Your task to perform on an android device: open app "Microsoft Excel" (install if not already installed) and enter user name: "kidnappers@icloud.com" and password: "Bessemerizes" Image 0: 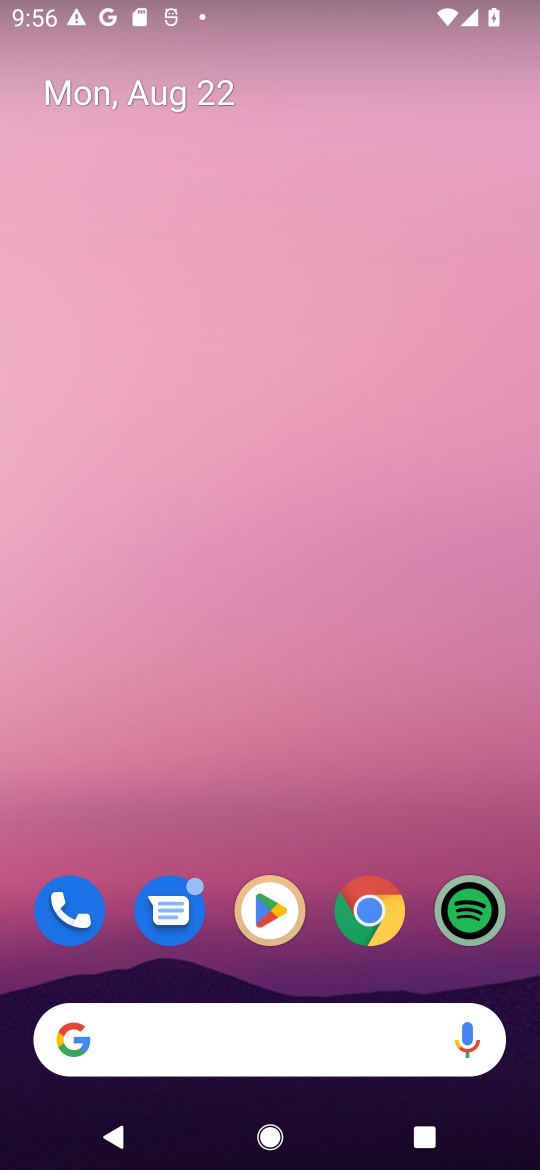
Step 0: click (268, 921)
Your task to perform on an android device: open app "Microsoft Excel" (install if not already installed) and enter user name: "kidnappers@icloud.com" and password: "Bessemerizes" Image 1: 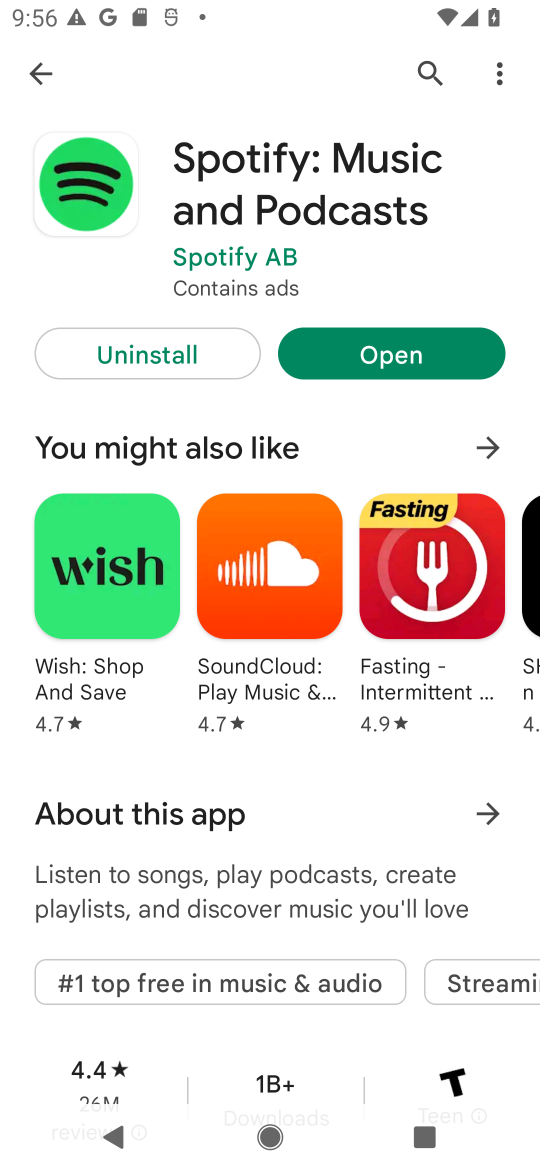
Step 1: click (424, 66)
Your task to perform on an android device: open app "Microsoft Excel" (install if not already installed) and enter user name: "kidnappers@icloud.com" and password: "Bessemerizes" Image 2: 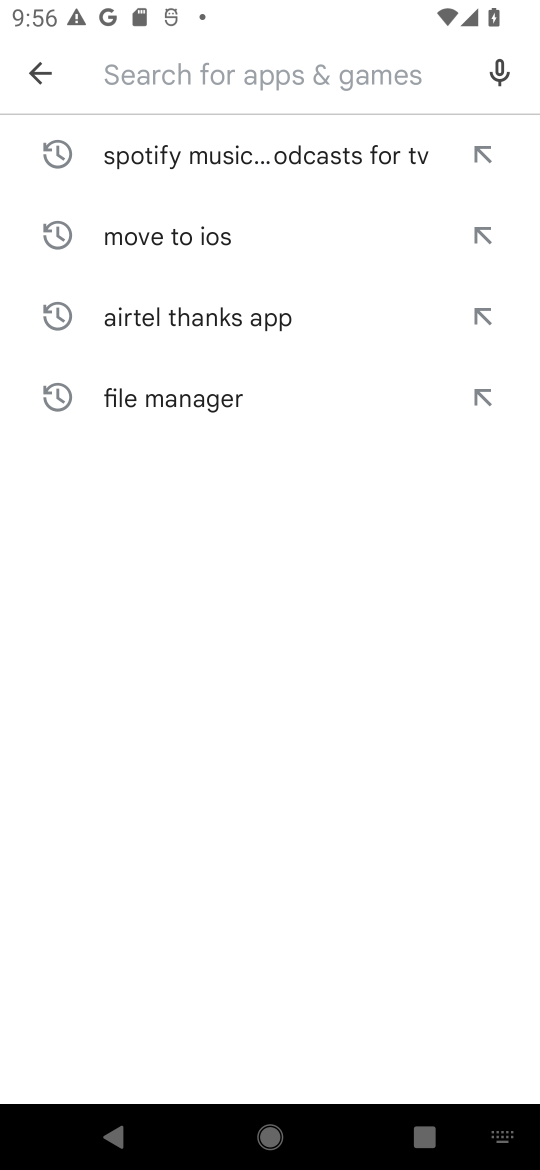
Step 2: type "Microsoft Excel"
Your task to perform on an android device: open app "Microsoft Excel" (install if not already installed) and enter user name: "kidnappers@icloud.com" and password: "Bessemerizes" Image 3: 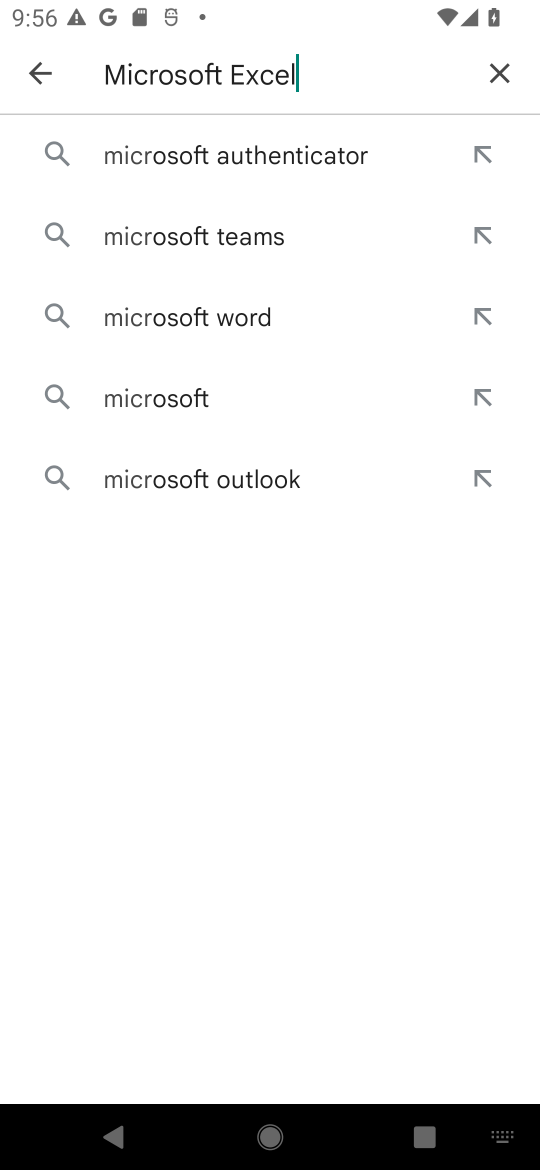
Step 3: type ""
Your task to perform on an android device: open app "Microsoft Excel" (install if not already installed) and enter user name: "kidnappers@icloud.com" and password: "Bessemerizes" Image 4: 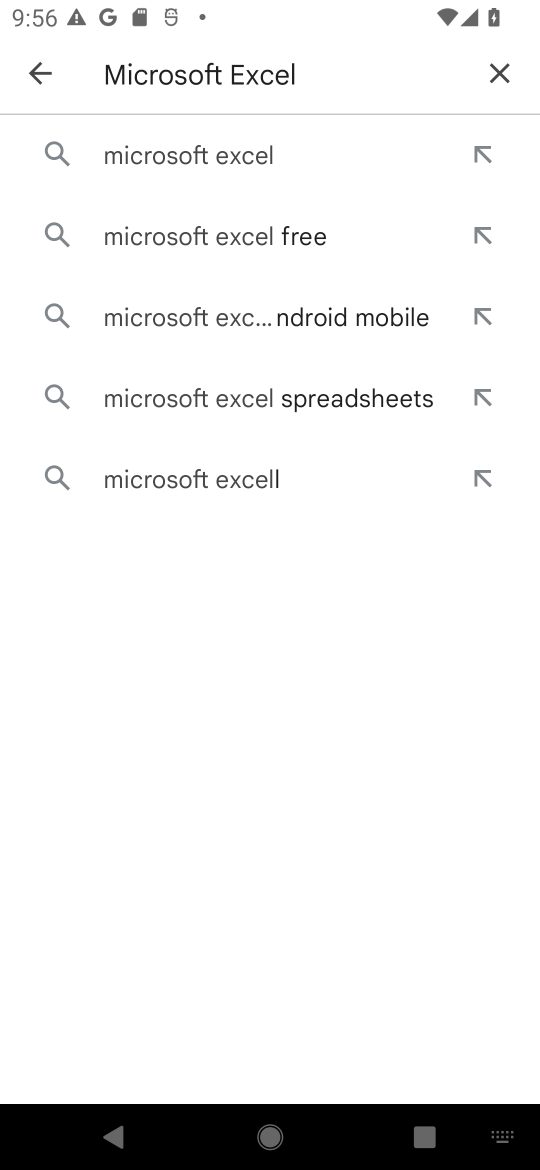
Step 4: click (219, 169)
Your task to perform on an android device: open app "Microsoft Excel" (install if not already installed) and enter user name: "kidnappers@icloud.com" and password: "Bessemerizes" Image 5: 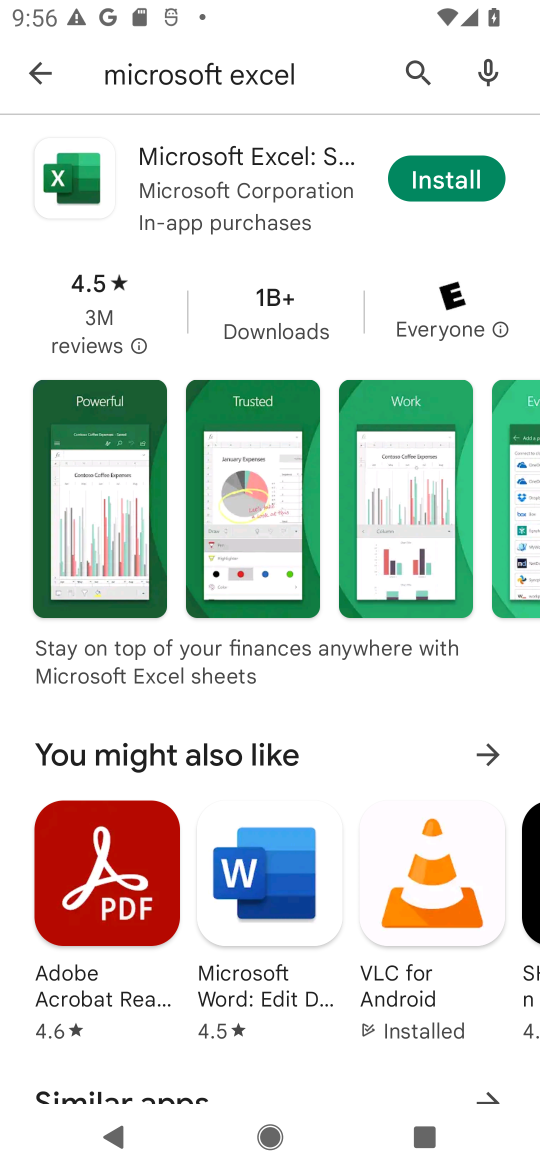
Step 5: click (426, 179)
Your task to perform on an android device: open app "Microsoft Excel" (install if not already installed) and enter user name: "kidnappers@icloud.com" and password: "Bessemerizes" Image 6: 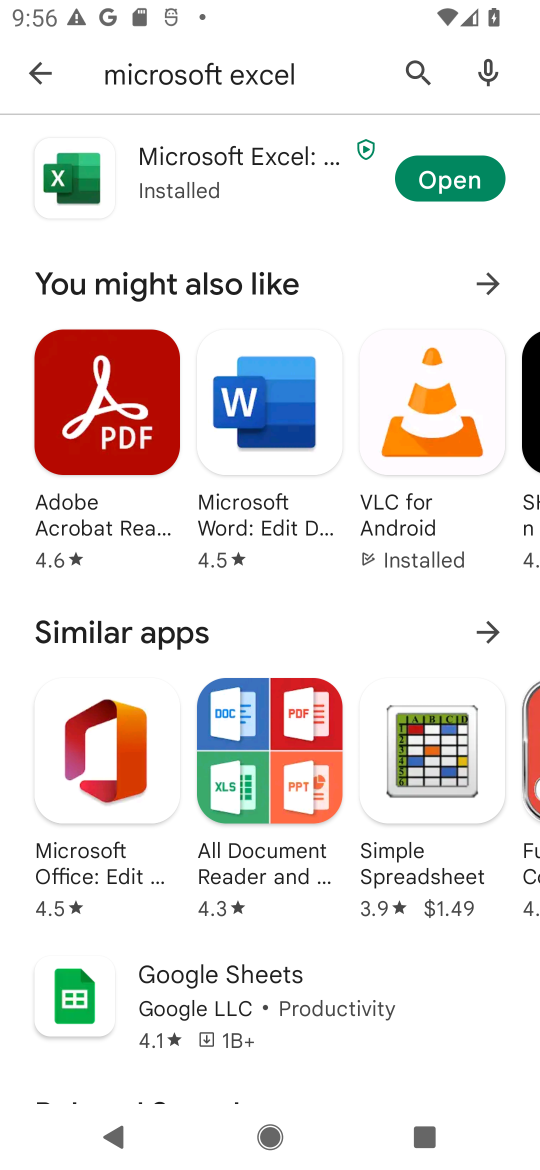
Step 6: click (482, 180)
Your task to perform on an android device: open app "Microsoft Excel" (install if not already installed) and enter user name: "kidnappers@icloud.com" and password: "Bessemerizes" Image 7: 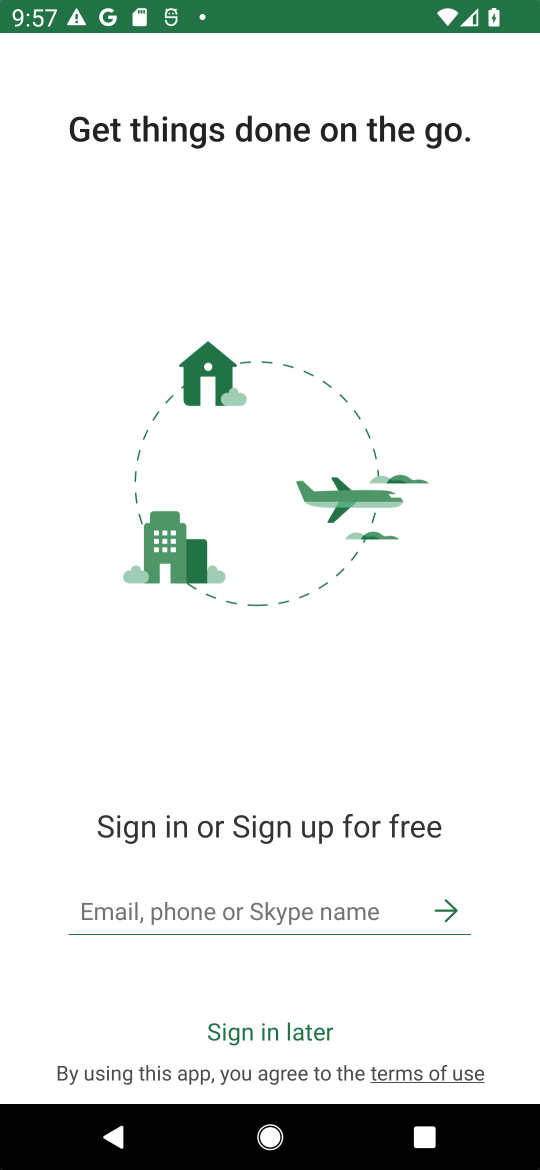
Step 7: task complete